Your task to perform on an android device: turn notification dots off Image 0: 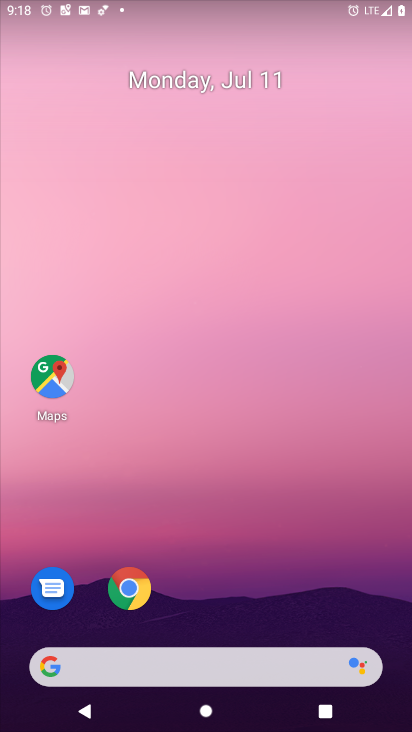
Step 0: drag from (165, 666) to (245, 177)
Your task to perform on an android device: turn notification dots off Image 1: 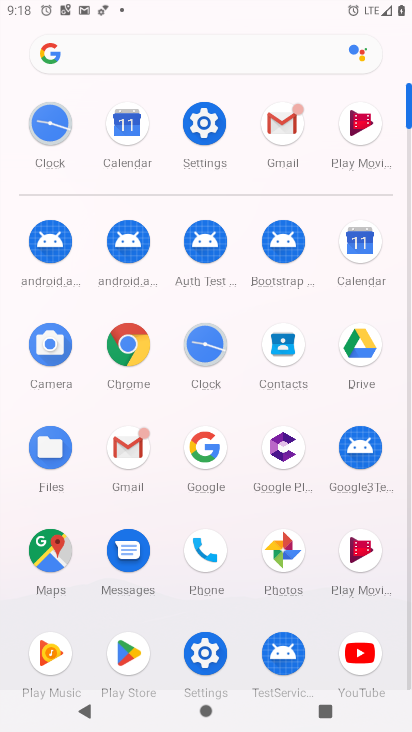
Step 1: click (205, 118)
Your task to perform on an android device: turn notification dots off Image 2: 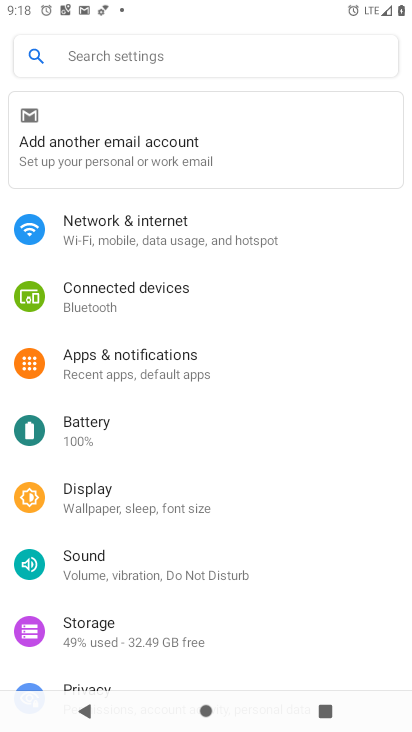
Step 2: click (137, 360)
Your task to perform on an android device: turn notification dots off Image 3: 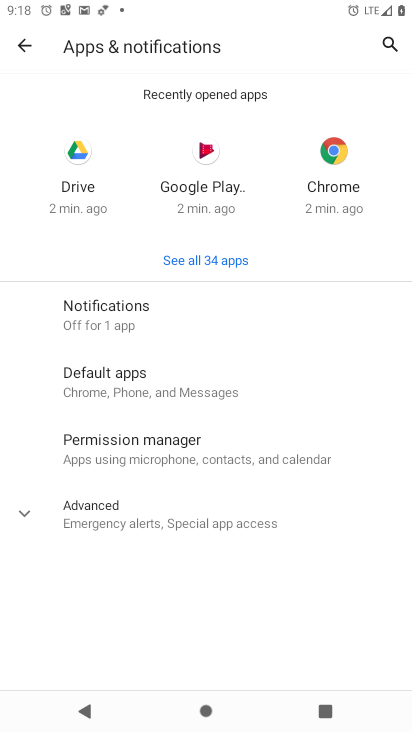
Step 3: click (123, 320)
Your task to perform on an android device: turn notification dots off Image 4: 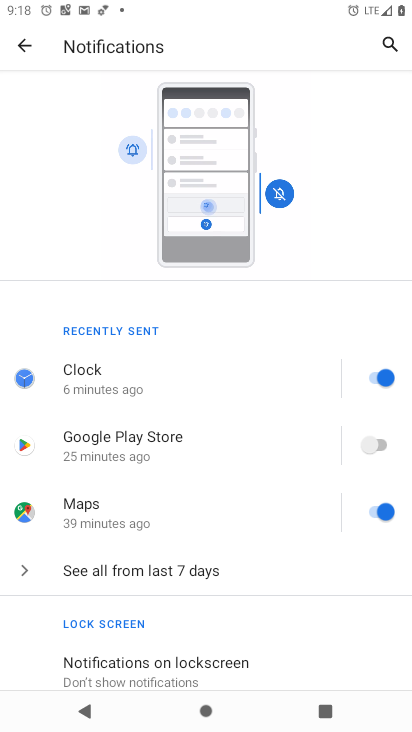
Step 4: drag from (221, 650) to (279, 312)
Your task to perform on an android device: turn notification dots off Image 5: 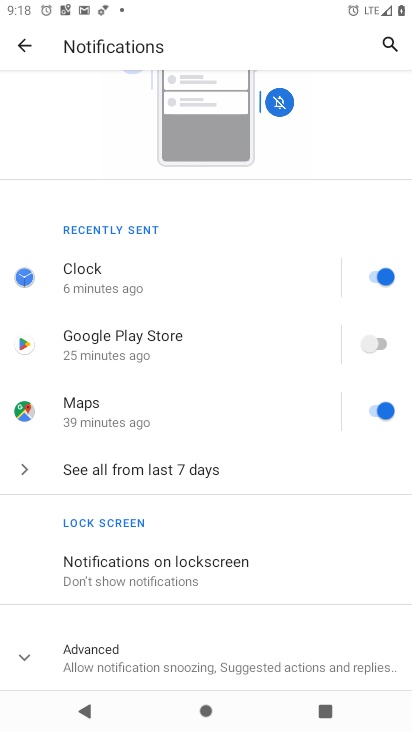
Step 5: click (103, 654)
Your task to perform on an android device: turn notification dots off Image 6: 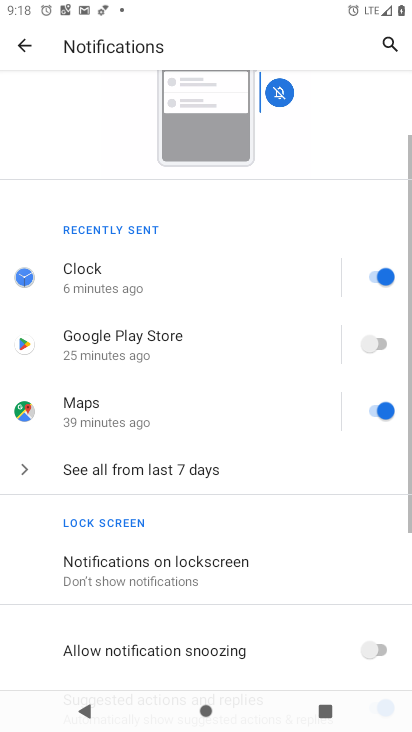
Step 6: drag from (236, 602) to (264, 232)
Your task to perform on an android device: turn notification dots off Image 7: 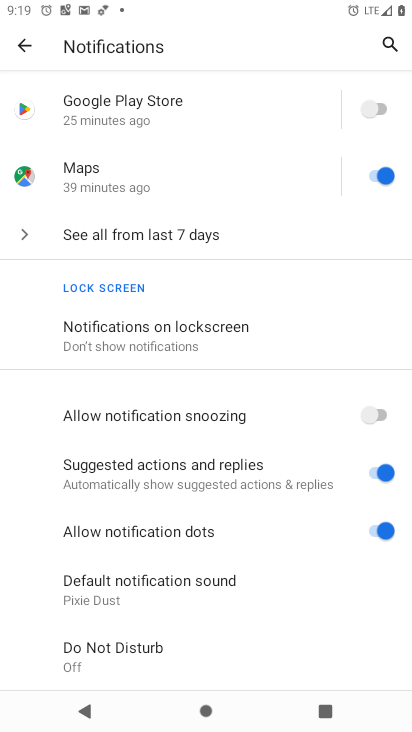
Step 7: click (374, 534)
Your task to perform on an android device: turn notification dots off Image 8: 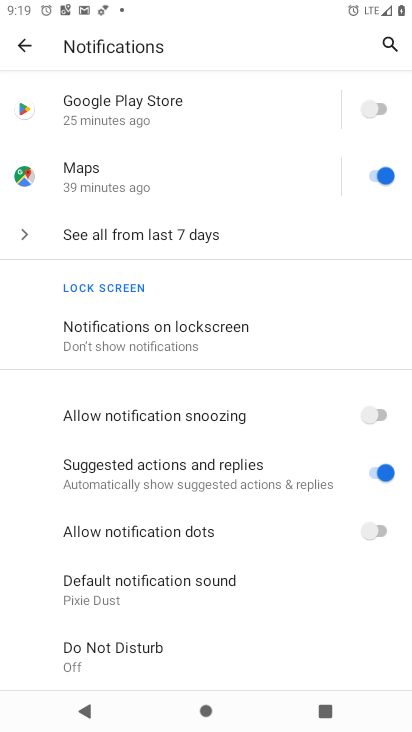
Step 8: task complete